Your task to perform on an android device: move an email to a new category in the gmail app Image 0: 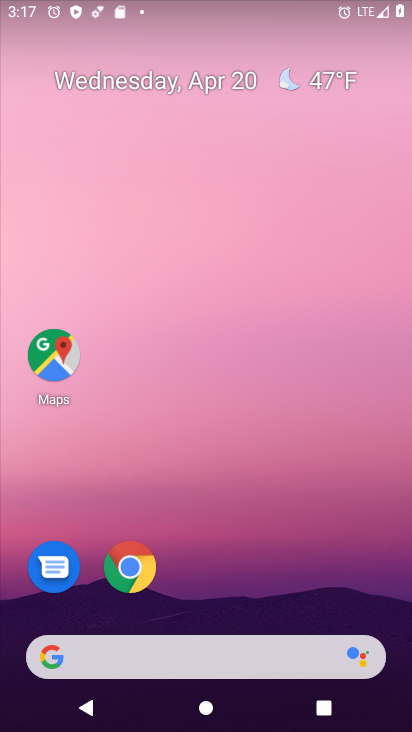
Step 0: drag from (283, 448) to (199, 33)
Your task to perform on an android device: move an email to a new category in the gmail app Image 1: 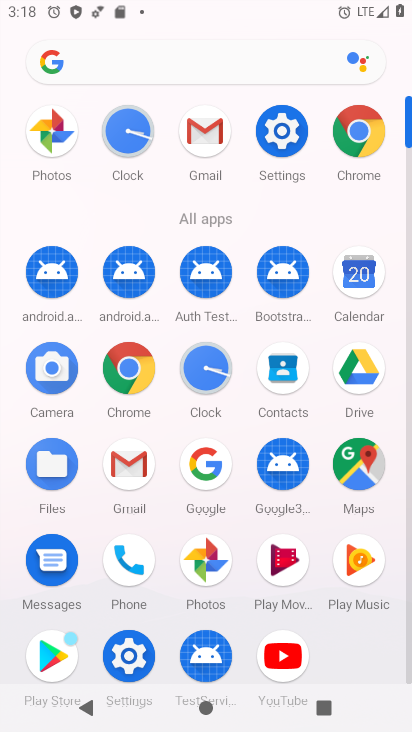
Step 1: click (131, 457)
Your task to perform on an android device: move an email to a new category in the gmail app Image 2: 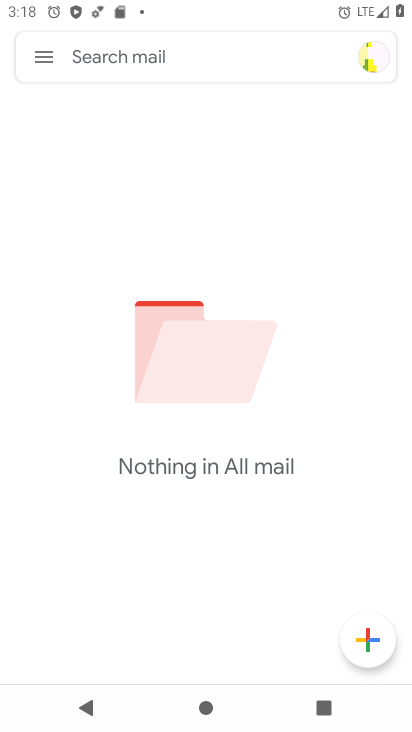
Step 2: click (51, 51)
Your task to perform on an android device: move an email to a new category in the gmail app Image 3: 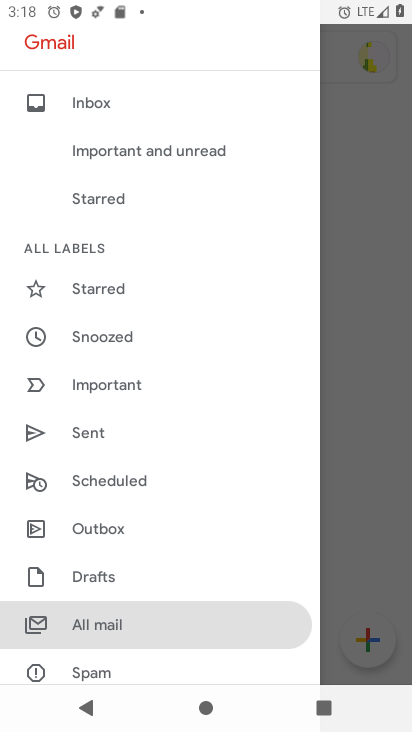
Step 3: click (136, 624)
Your task to perform on an android device: move an email to a new category in the gmail app Image 4: 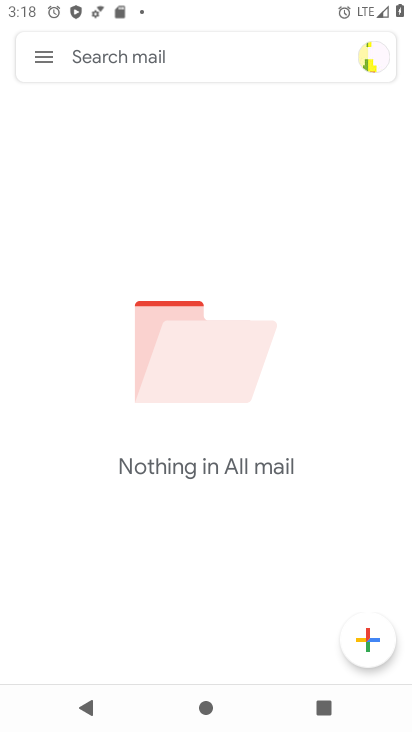
Step 4: click (45, 63)
Your task to perform on an android device: move an email to a new category in the gmail app Image 5: 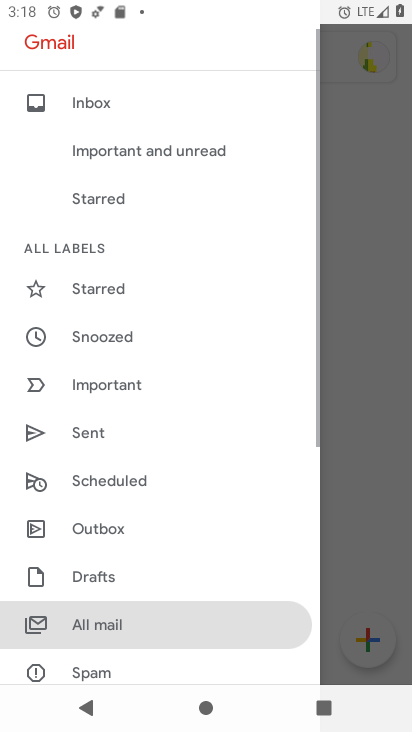
Step 5: drag from (155, 192) to (186, 582)
Your task to perform on an android device: move an email to a new category in the gmail app Image 6: 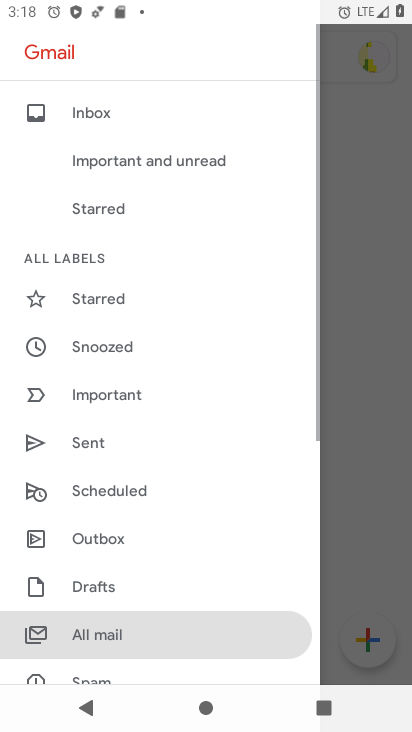
Step 6: click (147, 103)
Your task to perform on an android device: move an email to a new category in the gmail app Image 7: 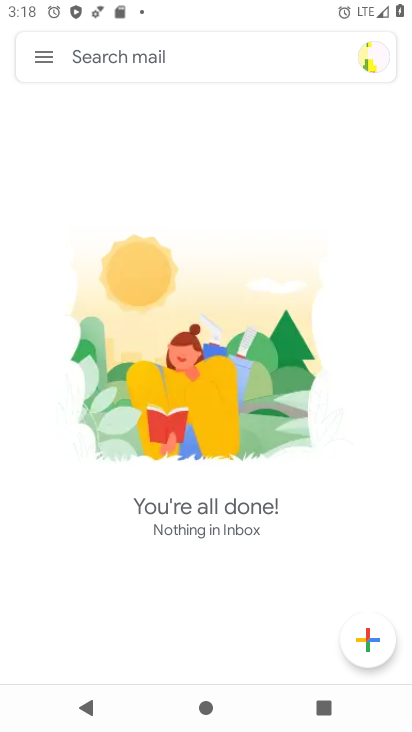
Step 7: click (48, 50)
Your task to perform on an android device: move an email to a new category in the gmail app Image 8: 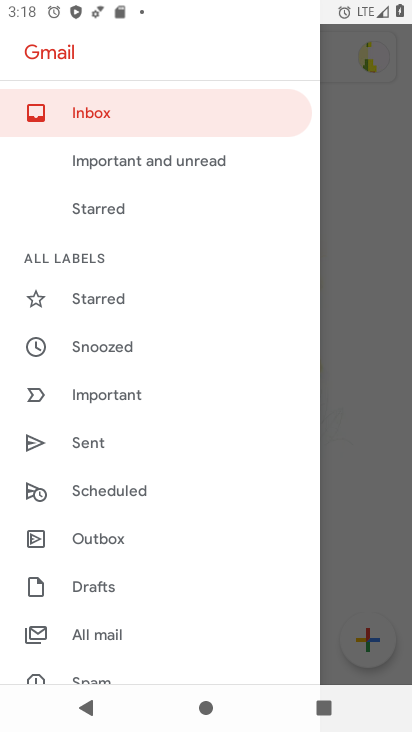
Step 8: click (128, 628)
Your task to perform on an android device: move an email to a new category in the gmail app Image 9: 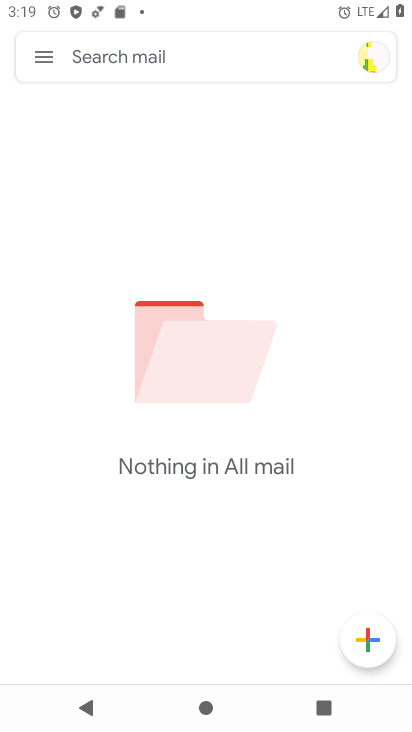
Step 9: task complete